Your task to perform on an android device: change the upload size in google photos Image 0: 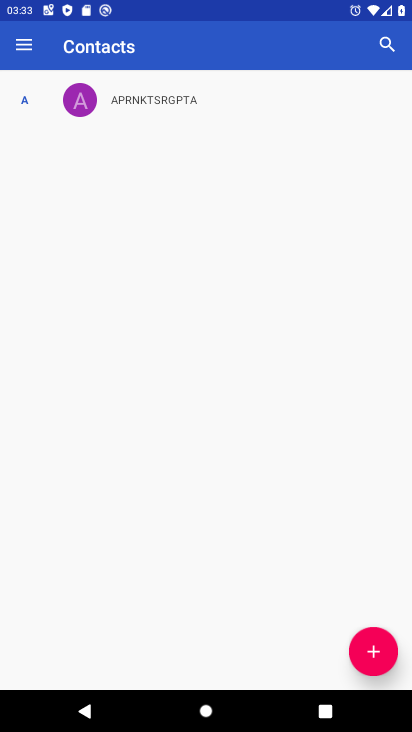
Step 0: press home button
Your task to perform on an android device: change the upload size in google photos Image 1: 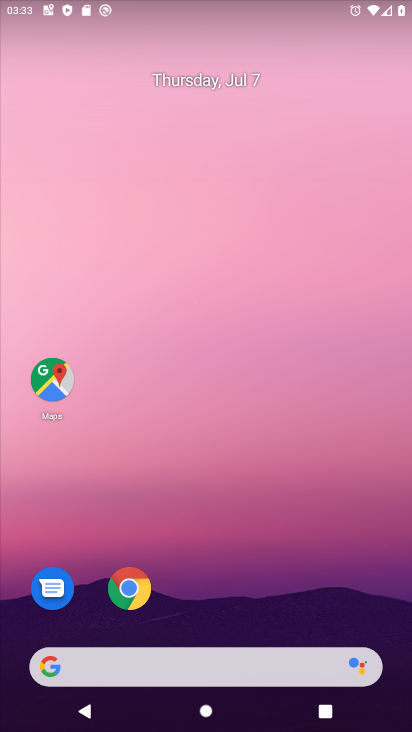
Step 1: drag from (160, 632) to (195, 283)
Your task to perform on an android device: change the upload size in google photos Image 2: 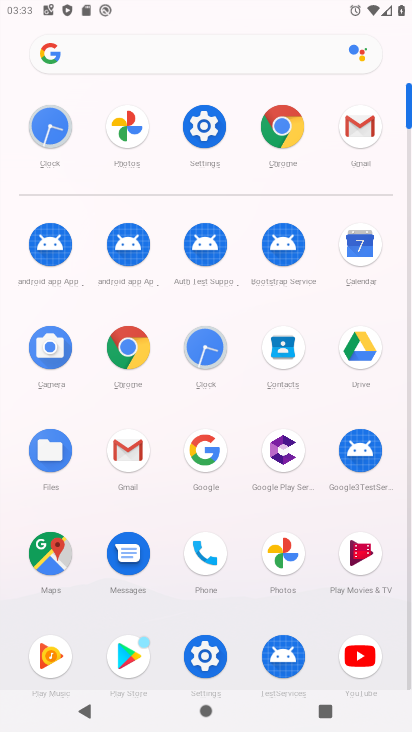
Step 2: click (125, 135)
Your task to perform on an android device: change the upload size in google photos Image 3: 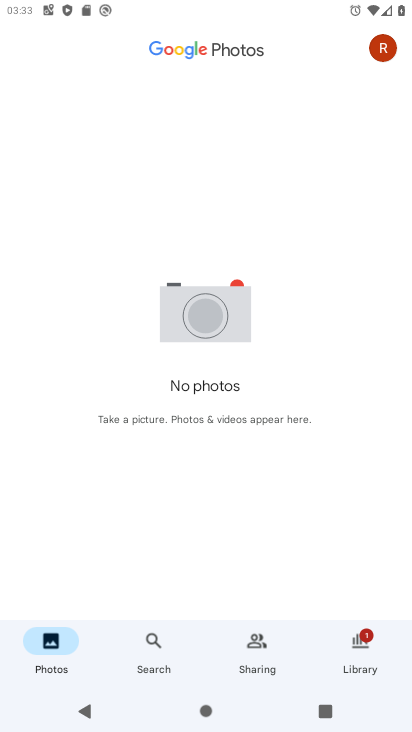
Step 3: click (387, 53)
Your task to perform on an android device: change the upload size in google photos Image 4: 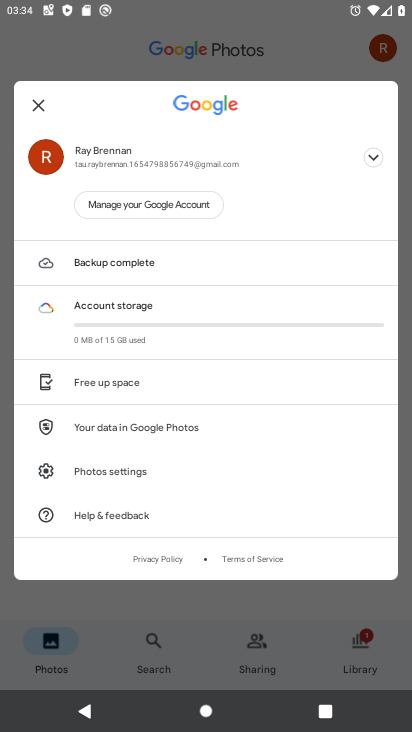
Step 4: click (96, 258)
Your task to perform on an android device: change the upload size in google photos Image 5: 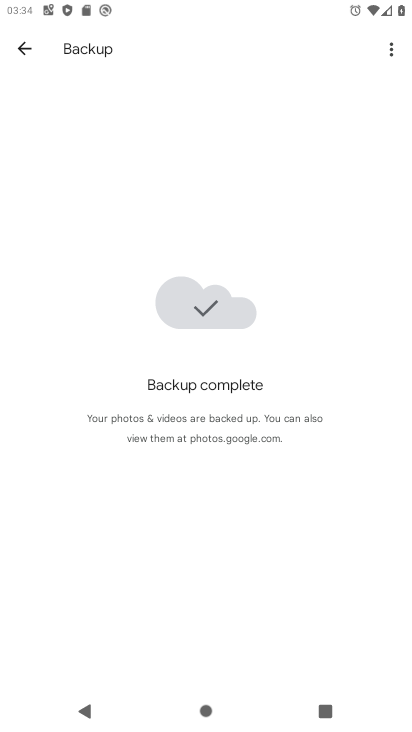
Step 5: click (391, 47)
Your task to perform on an android device: change the upload size in google photos Image 6: 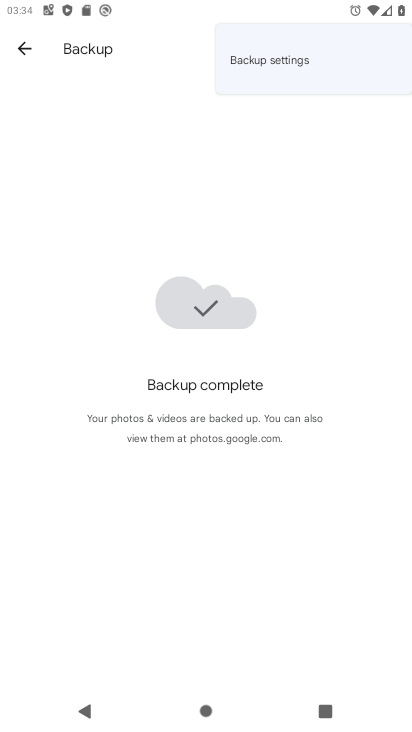
Step 6: click (26, 47)
Your task to perform on an android device: change the upload size in google photos Image 7: 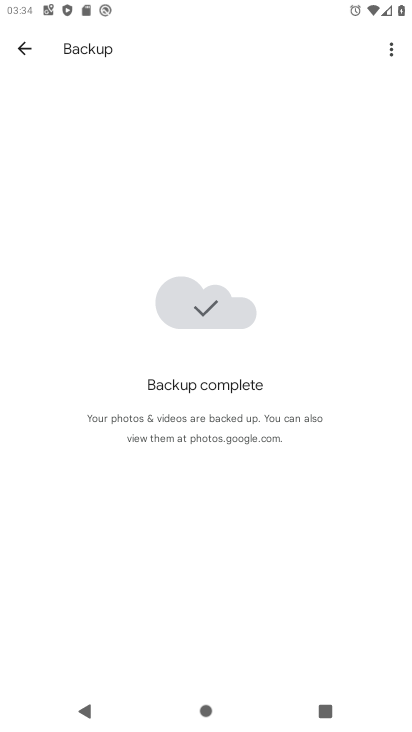
Step 7: click (24, 47)
Your task to perform on an android device: change the upload size in google photos Image 8: 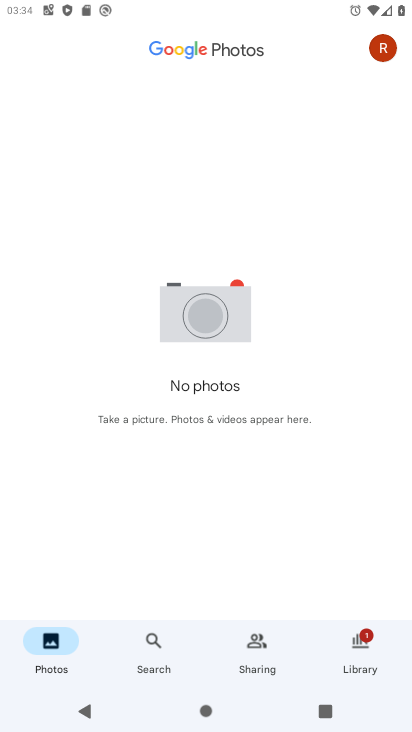
Step 8: click (379, 50)
Your task to perform on an android device: change the upload size in google photos Image 9: 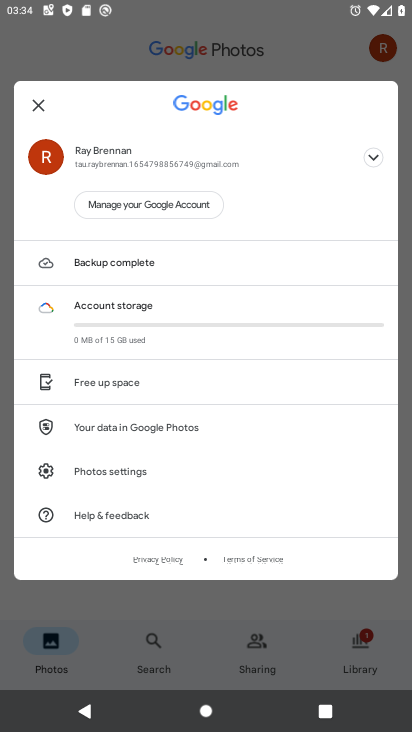
Step 9: click (118, 462)
Your task to perform on an android device: change the upload size in google photos Image 10: 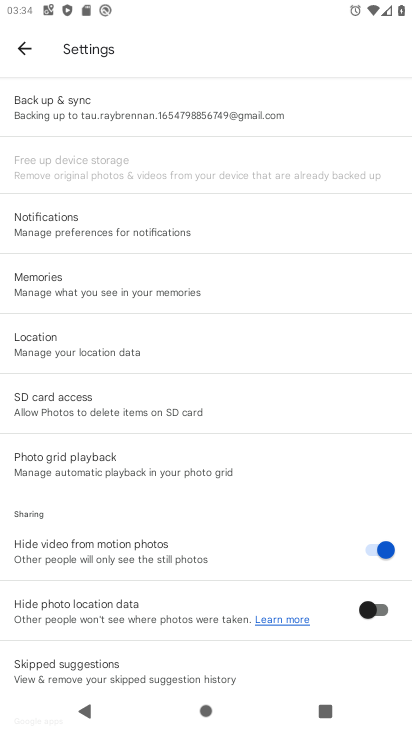
Step 10: click (90, 108)
Your task to perform on an android device: change the upload size in google photos Image 11: 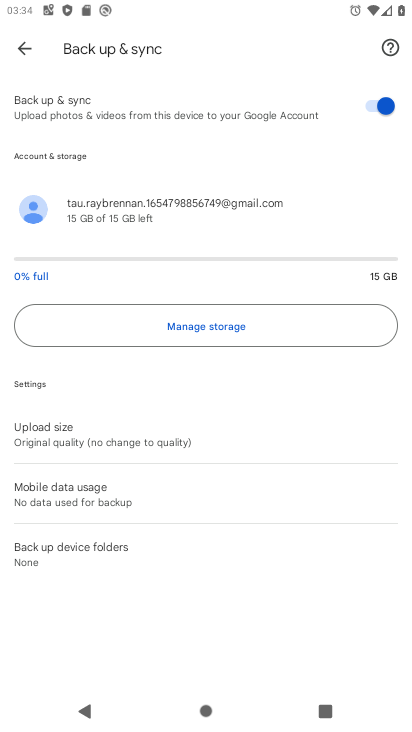
Step 11: click (49, 448)
Your task to perform on an android device: change the upload size in google photos Image 12: 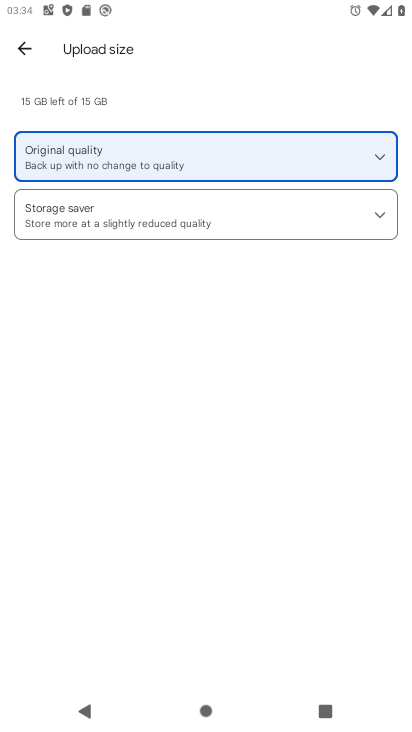
Step 12: click (107, 219)
Your task to perform on an android device: change the upload size in google photos Image 13: 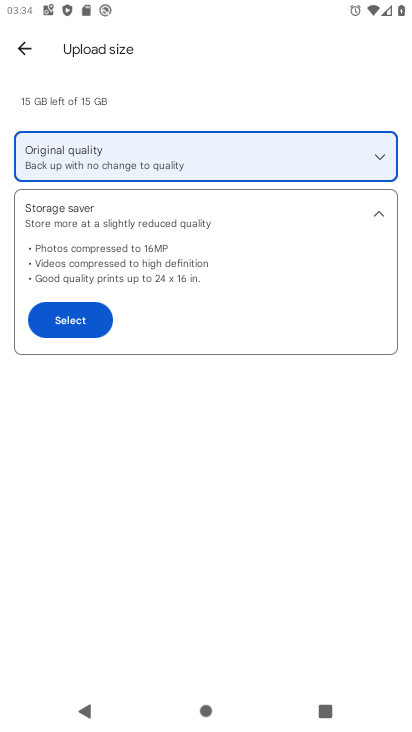
Step 13: click (74, 327)
Your task to perform on an android device: change the upload size in google photos Image 14: 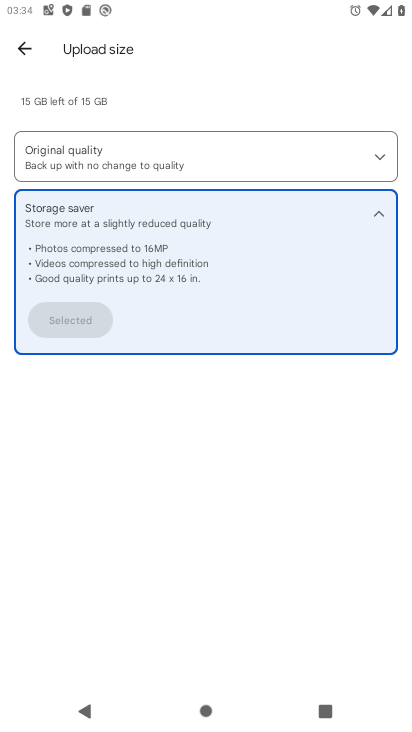
Step 14: task complete